Your task to perform on an android device: Go to Wikipedia Image 0: 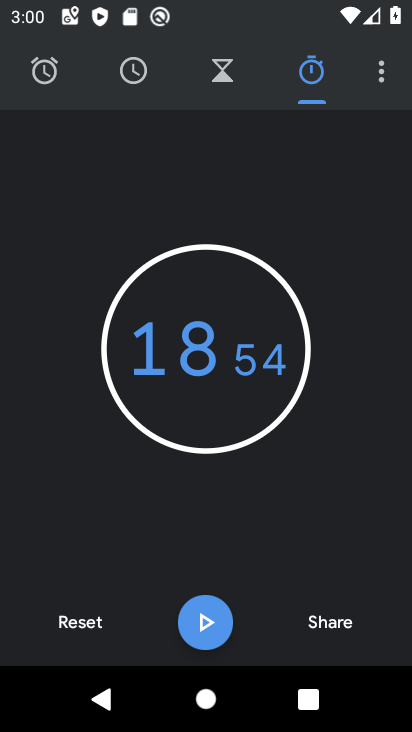
Step 0: press home button
Your task to perform on an android device: Go to Wikipedia Image 1: 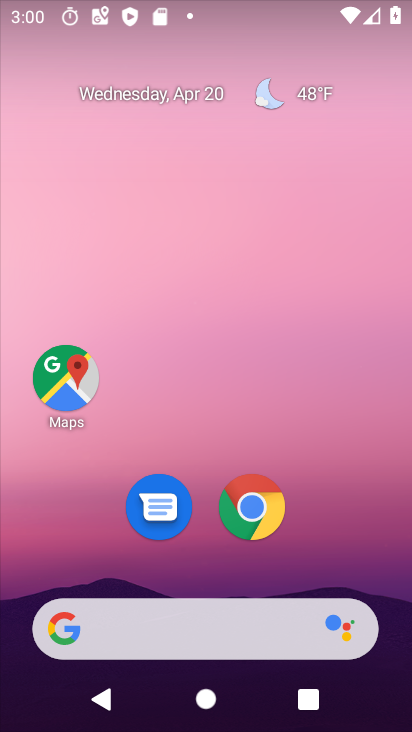
Step 1: click (265, 531)
Your task to perform on an android device: Go to Wikipedia Image 2: 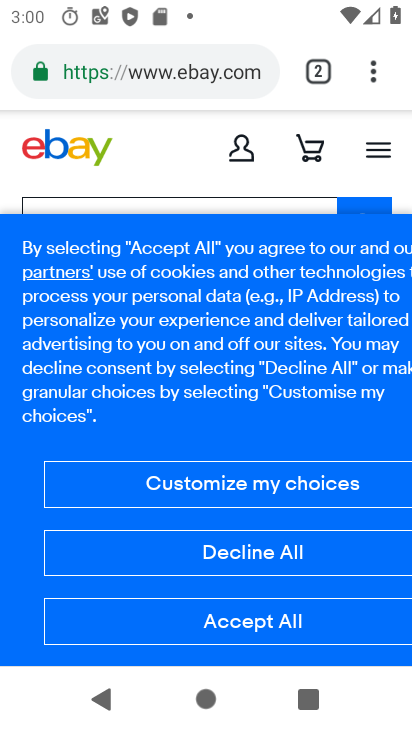
Step 2: click (194, 82)
Your task to perform on an android device: Go to Wikipedia Image 3: 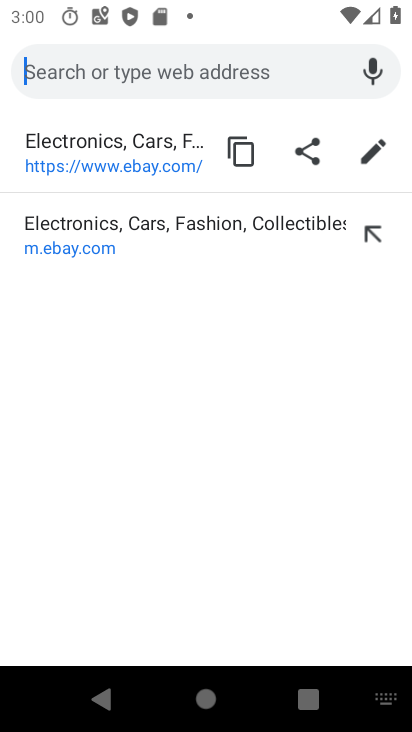
Step 3: type "wikipedia"
Your task to perform on an android device: Go to Wikipedia Image 4: 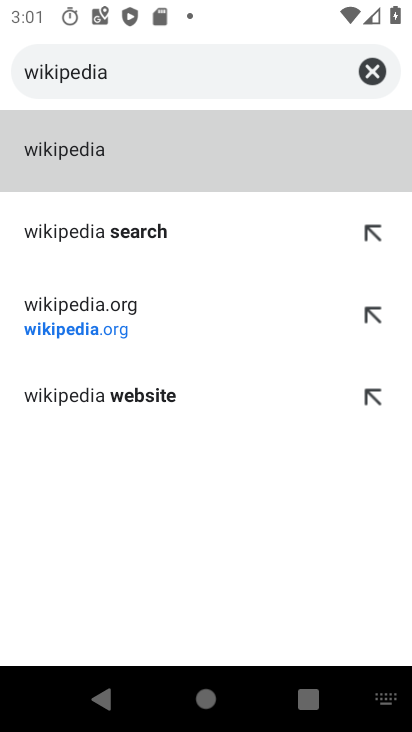
Step 4: click (99, 335)
Your task to perform on an android device: Go to Wikipedia Image 5: 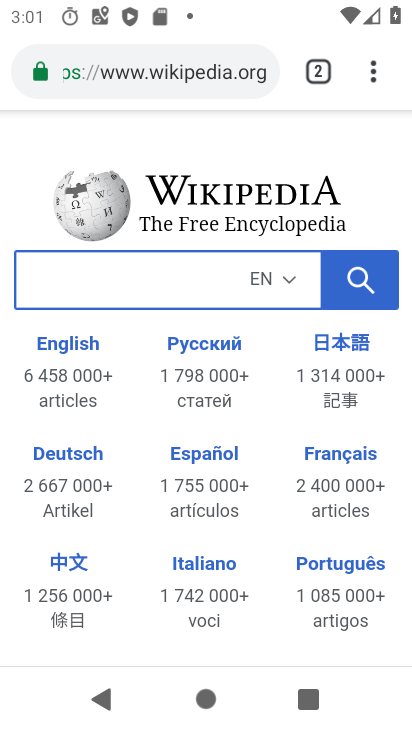
Step 5: task complete